Your task to perform on an android device: Open Google Chrome Image 0: 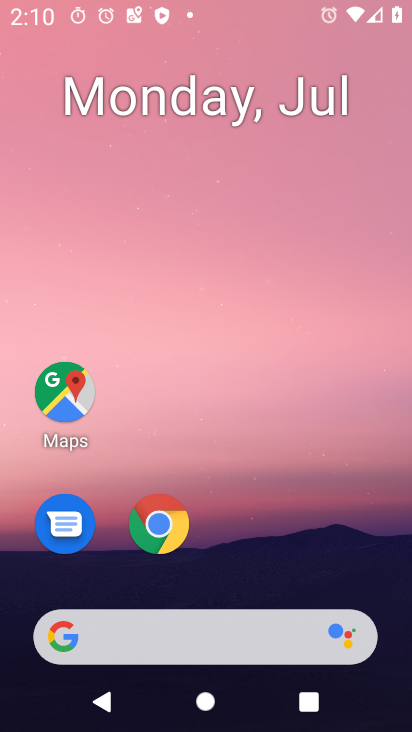
Step 0: press home button
Your task to perform on an android device: Open Google Chrome Image 1: 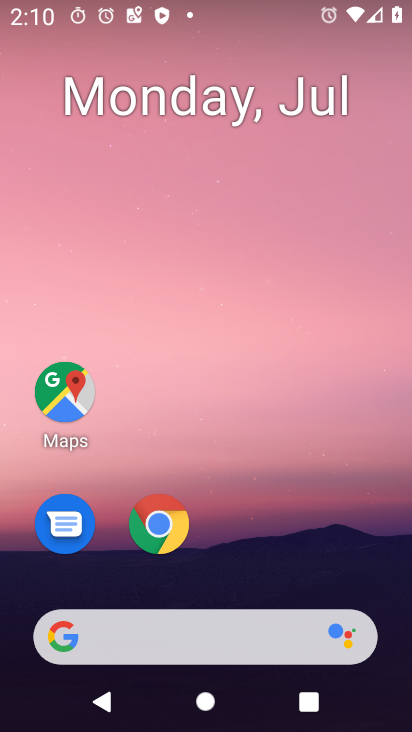
Step 1: drag from (275, 573) to (284, 178)
Your task to perform on an android device: Open Google Chrome Image 2: 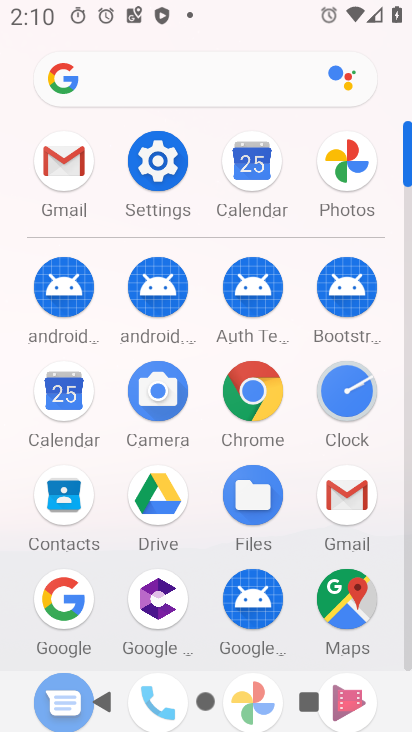
Step 2: click (250, 394)
Your task to perform on an android device: Open Google Chrome Image 3: 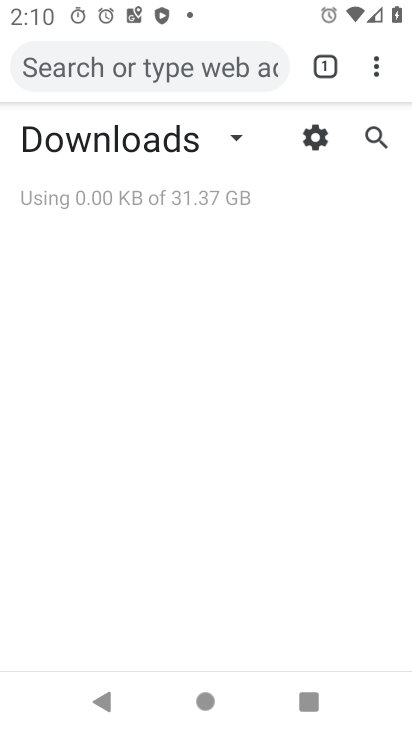
Step 3: task complete